Your task to perform on an android device: add a contact Image 0: 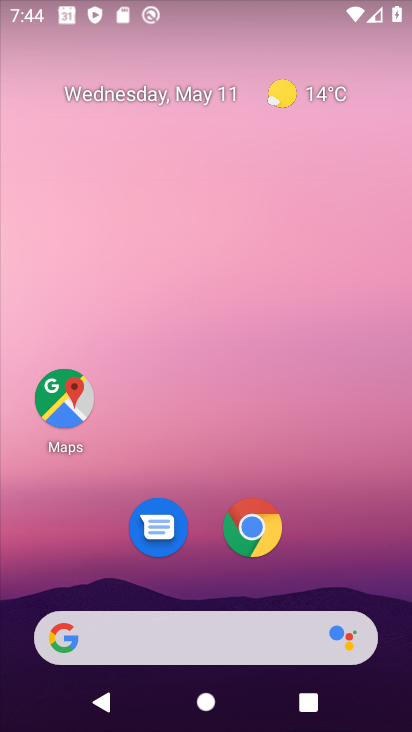
Step 0: drag from (209, 572) to (255, 82)
Your task to perform on an android device: add a contact Image 1: 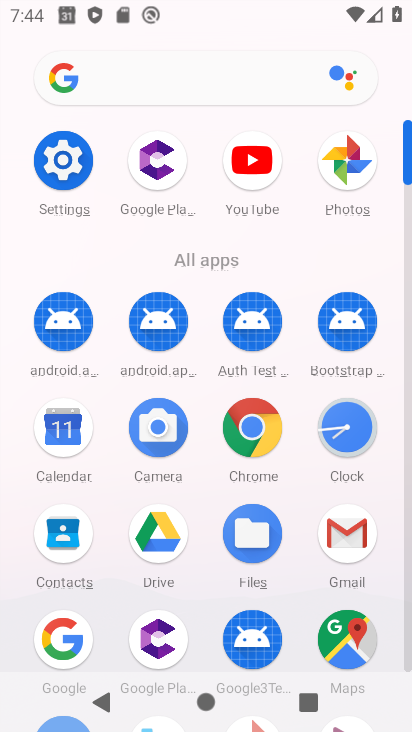
Step 1: click (64, 534)
Your task to perform on an android device: add a contact Image 2: 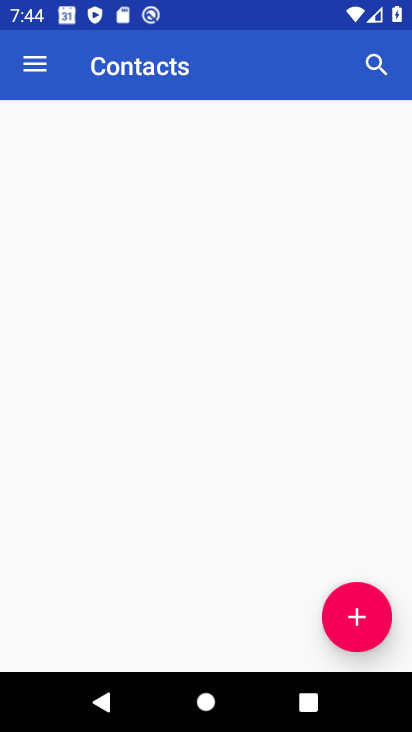
Step 2: click (364, 612)
Your task to perform on an android device: add a contact Image 3: 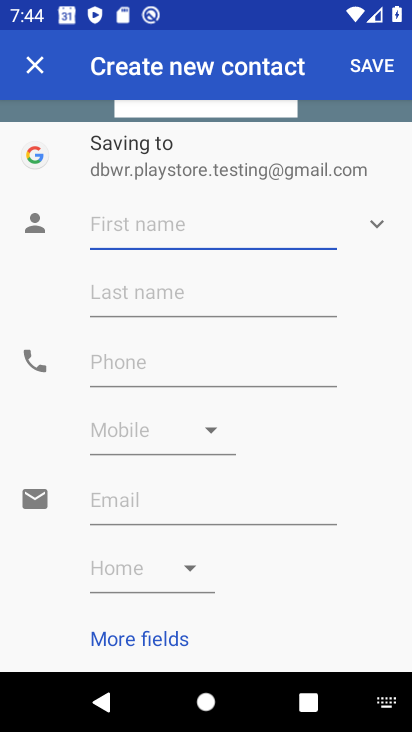
Step 3: type "tobey"
Your task to perform on an android device: add a contact Image 4: 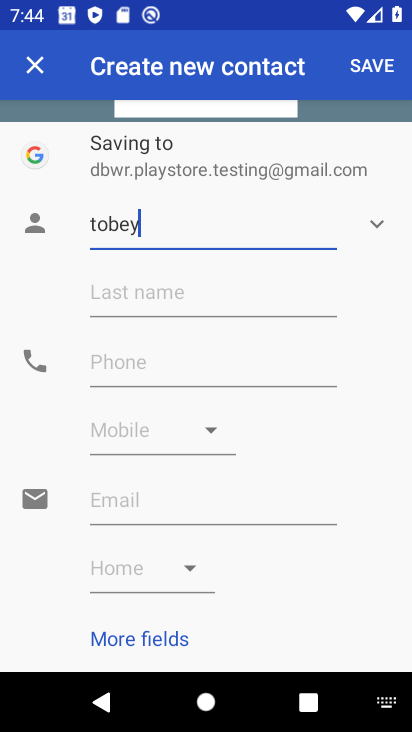
Step 4: click (124, 360)
Your task to perform on an android device: add a contact Image 5: 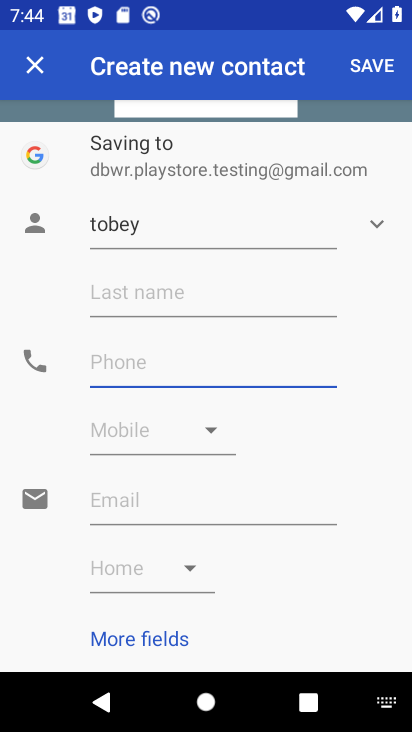
Step 5: type "8765499"
Your task to perform on an android device: add a contact Image 6: 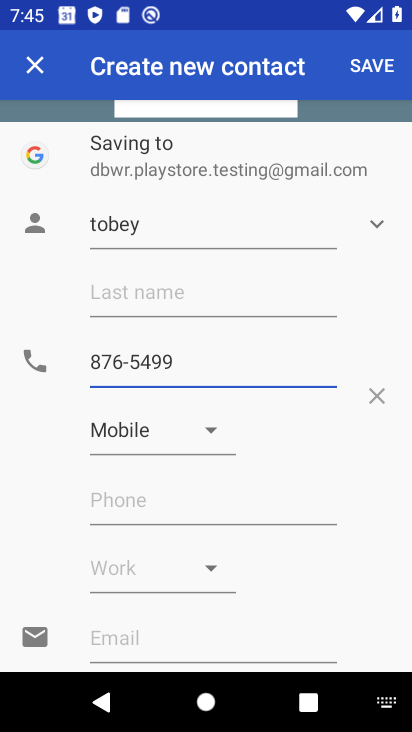
Step 6: click (396, 61)
Your task to perform on an android device: add a contact Image 7: 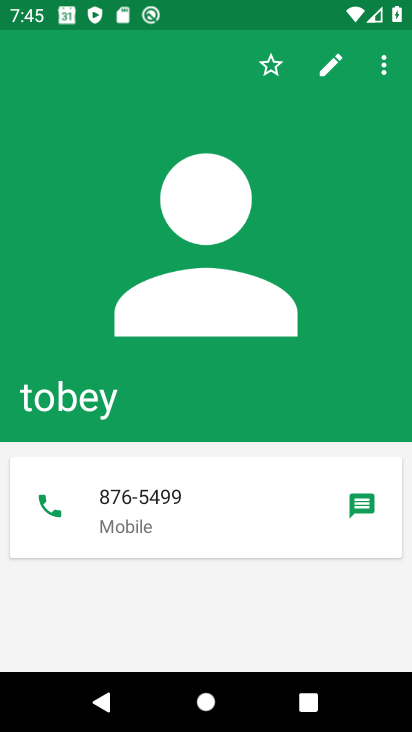
Step 7: task complete